Your task to perform on an android device: toggle notification dots Image 0: 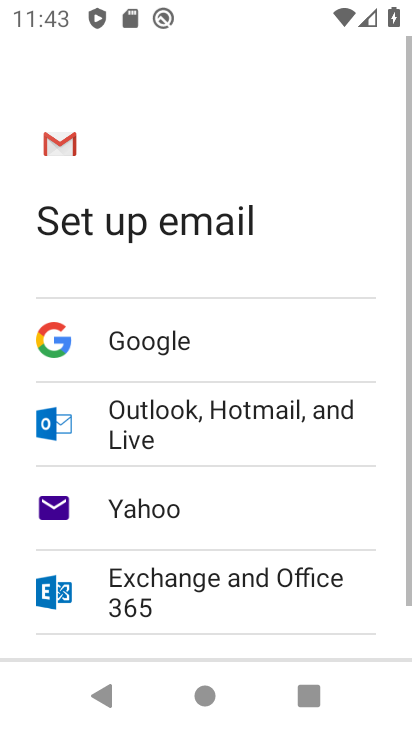
Step 0: press home button
Your task to perform on an android device: toggle notification dots Image 1: 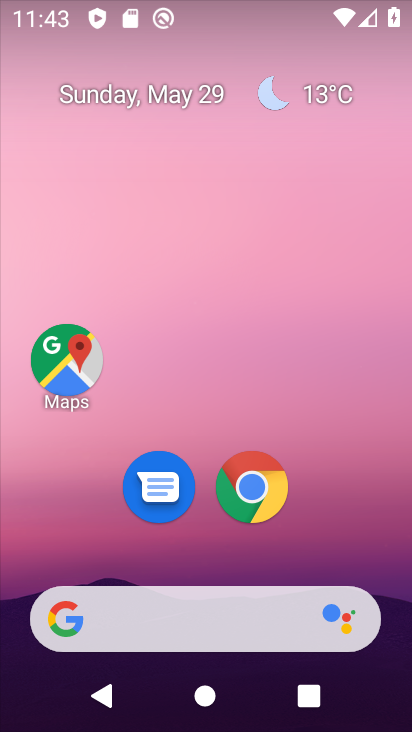
Step 1: drag from (359, 573) to (300, 134)
Your task to perform on an android device: toggle notification dots Image 2: 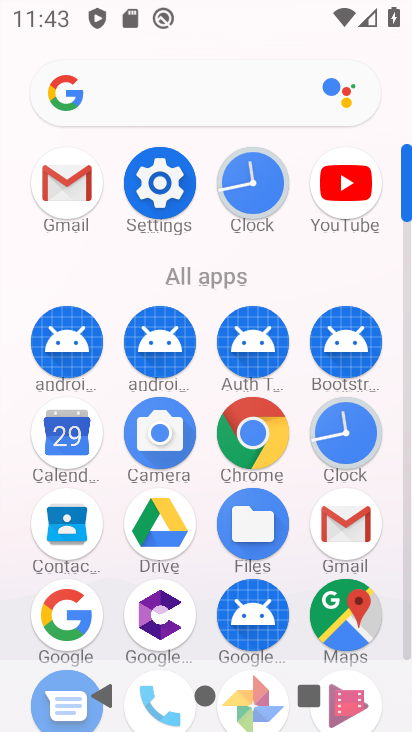
Step 2: click (173, 189)
Your task to perform on an android device: toggle notification dots Image 3: 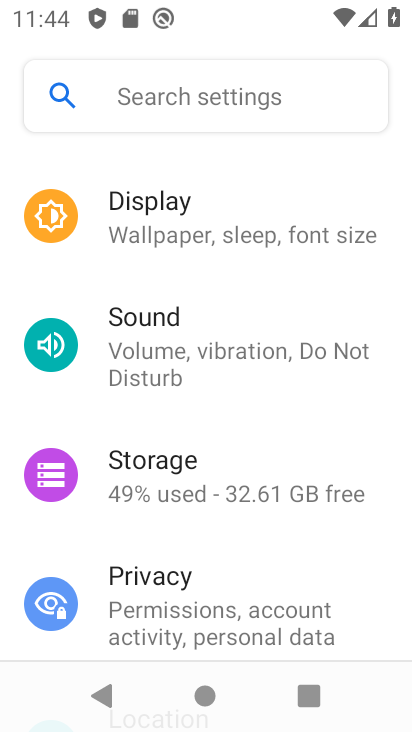
Step 3: drag from (202, 184) to (168, 603)
Your task to perform on an android device: toggle notification dots Image 4: 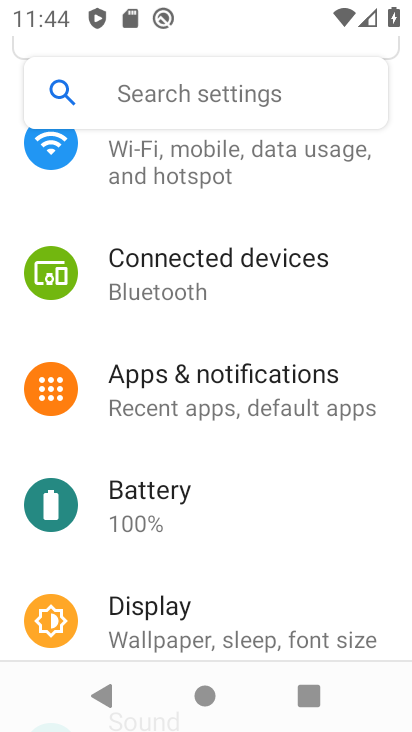
Step 4: click (204, 404)
Your task to perform on an android device: toggle notification dots Image 5: 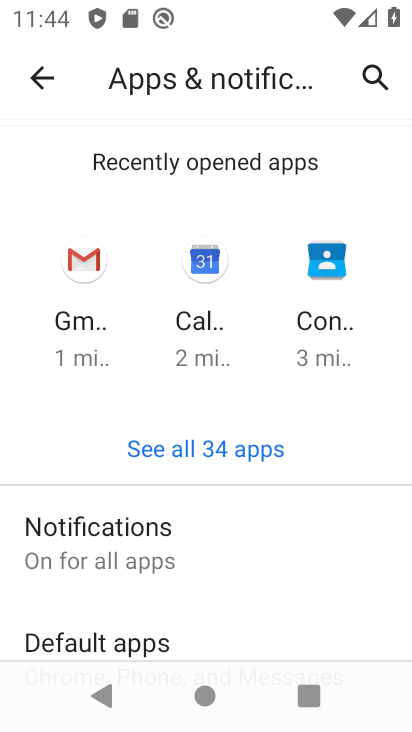
Step 5: click (218, 519)
Your task to perform on an android device: toggle notification dots Image 6: 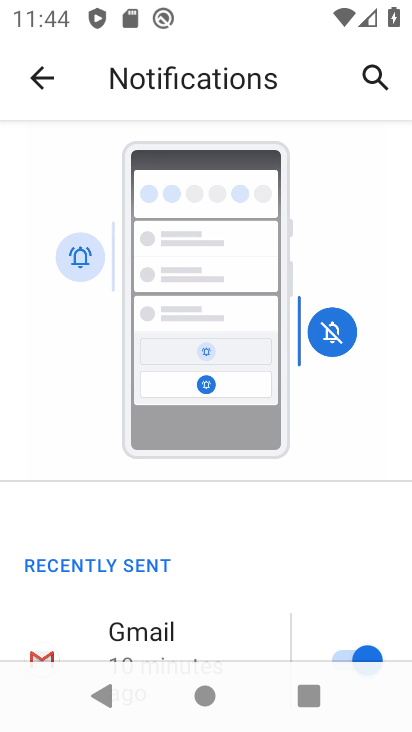
Step 6: drag from (213, 565) to (261, 11)
Your task to perform on an android device: toggle notification dots Image 7: 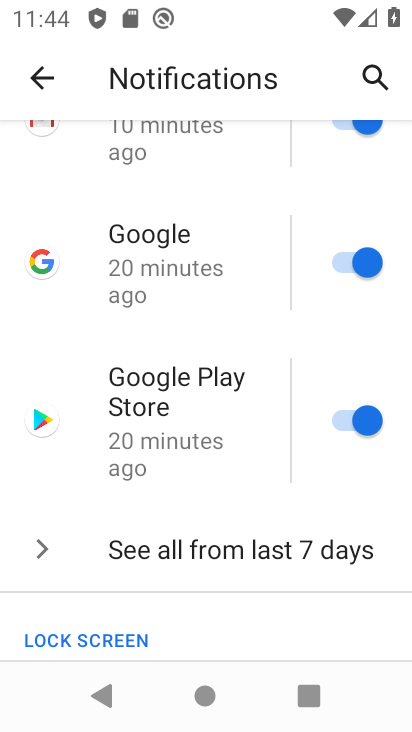
Step 7: drag from (223, 316) to (209, 70)
Your task to perform on an android device: toggle notification dots Image 8: 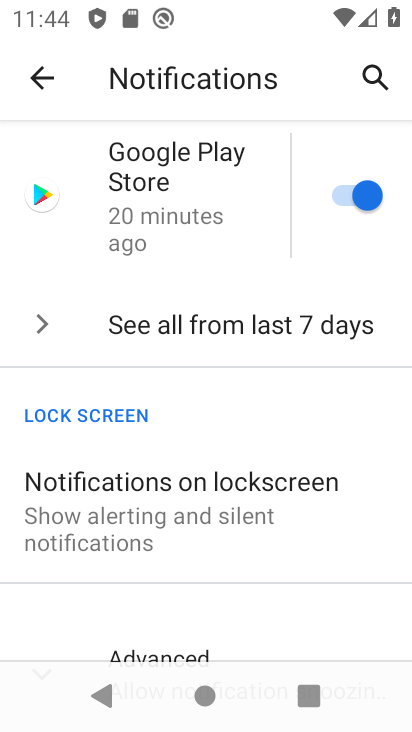
Step 8: drag from (214, 381) to (209, 143)
Your task to perform on an android device: toggle notification dots Image 9: 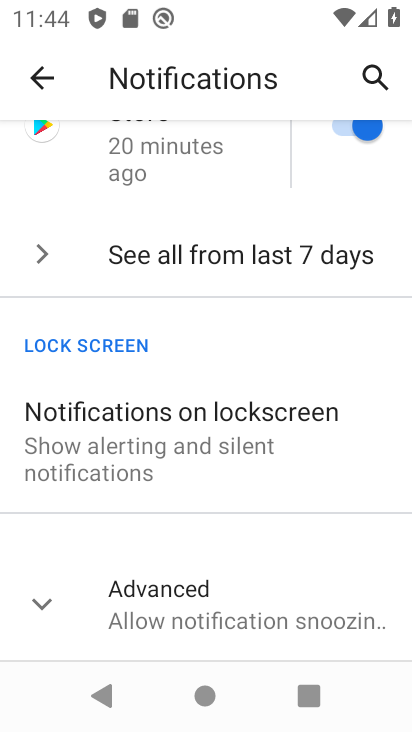
Step 9: click (219, 600)
Your task to perform on an android device: toggle notification dots Image 10: 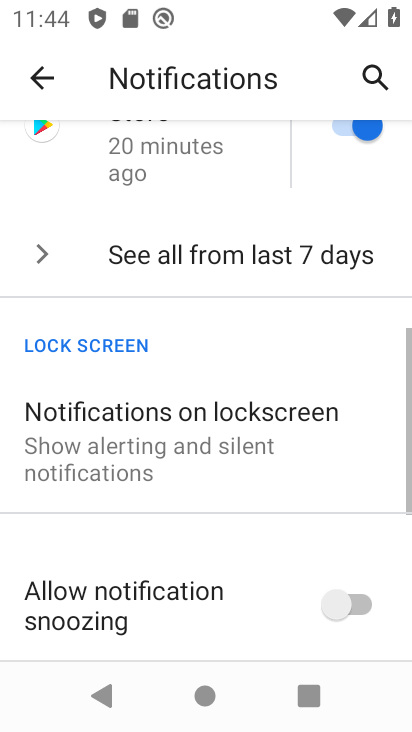
Step 10: drag from (219, 600) to (199, 204)
Your task to perform on an android device: toggle notification dots Image 11: 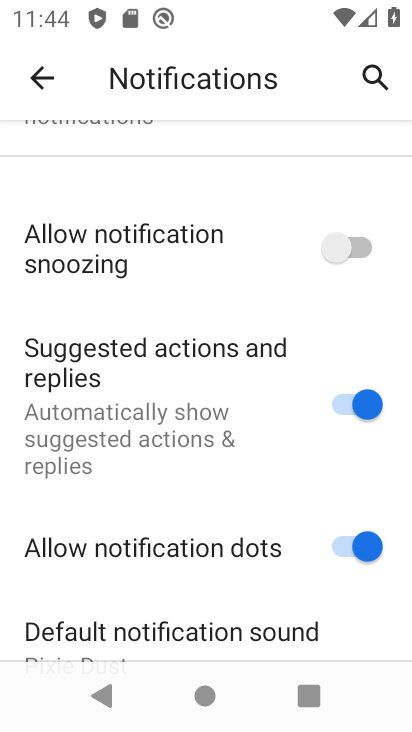
Step 11: click (349, 554)
Your task to perform on an android device: toggle notification dots Image 12: 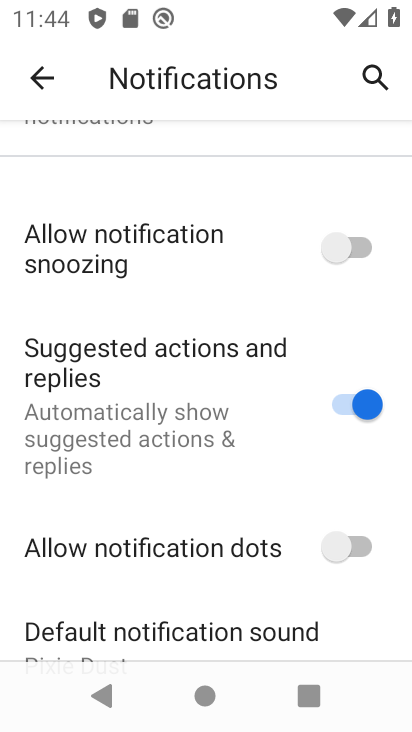
Step 12: task complete